Your task to perform on an android device: open a new tab in the chrome app Image 0: 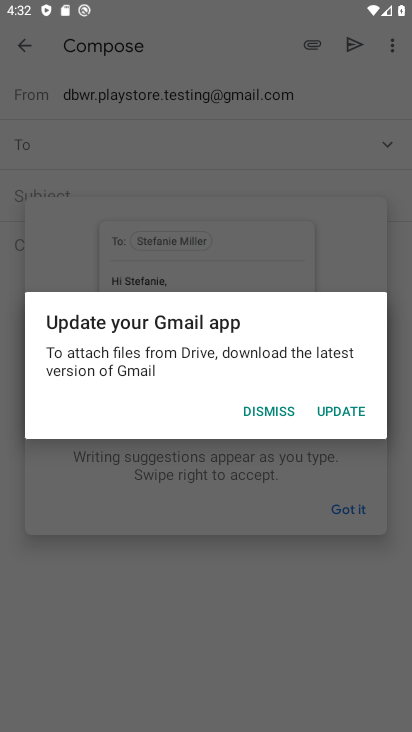
Step 0: press home button
Your task to perform on an android device: open a new tab in the chrome app Image 1: 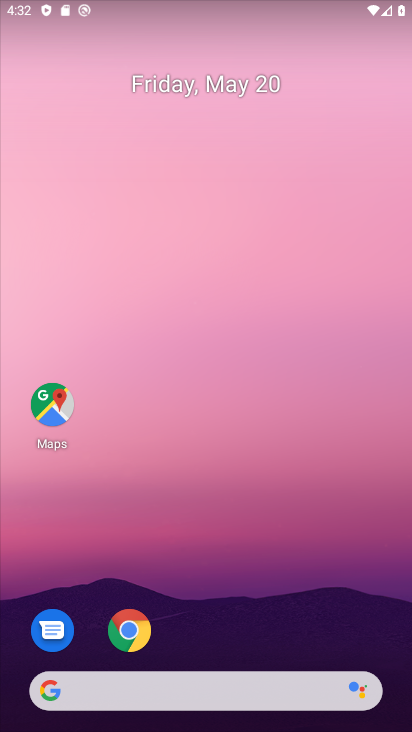
Step 1: click (139, 625)
Your task to perform on an android device: open a new tab in the chrome app Image 2: 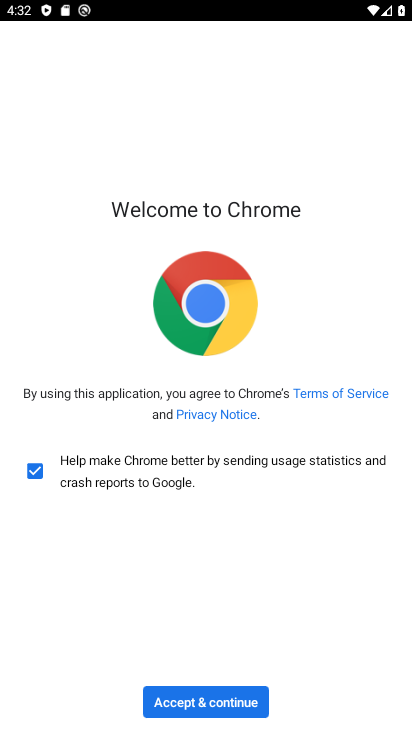
Step 2: click (230, 701)
Your task to perform on an android device: open a new tab in the chrome app Image 3: 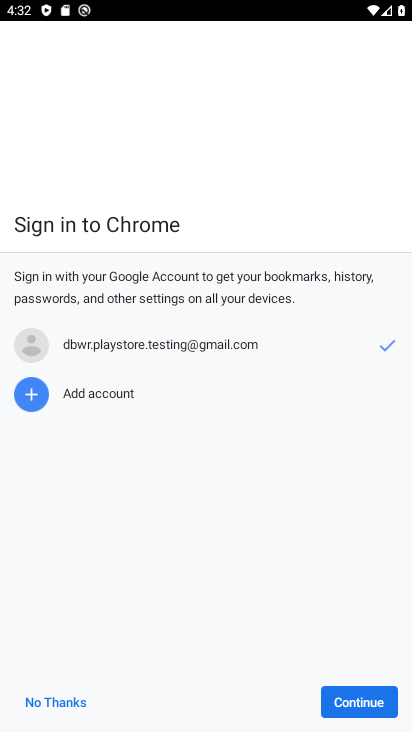
Step 3: click (347, 703)
Your task to perform on an android device: open a new tab in the chrome app Image 4: 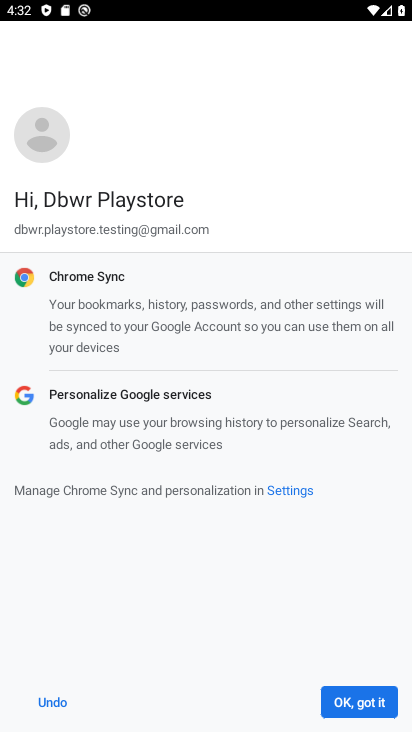
Step 4: click (347, 703)
Your task to perform on an android device: open a new tab in the chrome app Image 5: 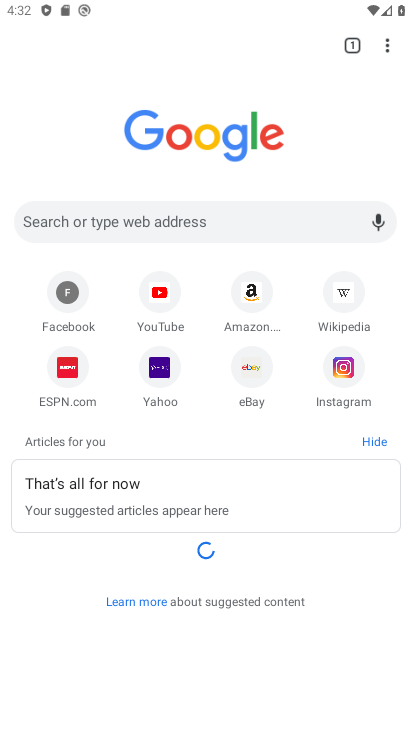
Step 5: click (384, 47)
Your task to perform on an android device: open a new tab in the chrome app Image 6: 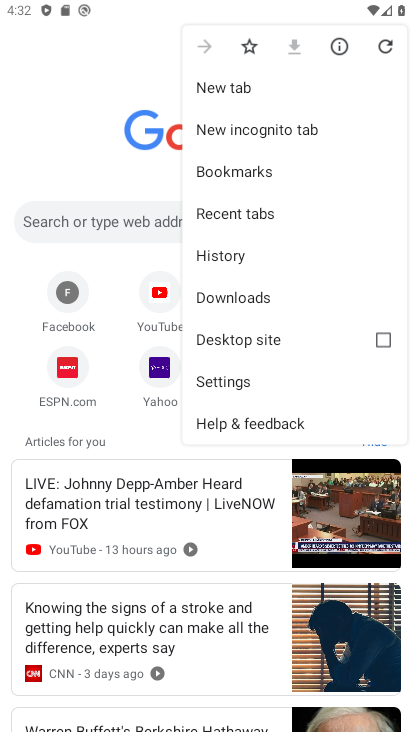
Step 6: click (332, 90)
Your task to perform on an android device: open a new tab in the chrome app Image 7: 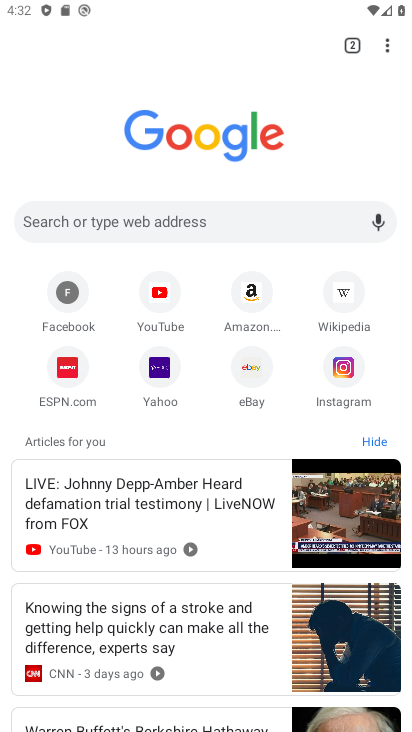
Step 7: task complete